Your task to perform on an android device: toggle wifi Image 0: 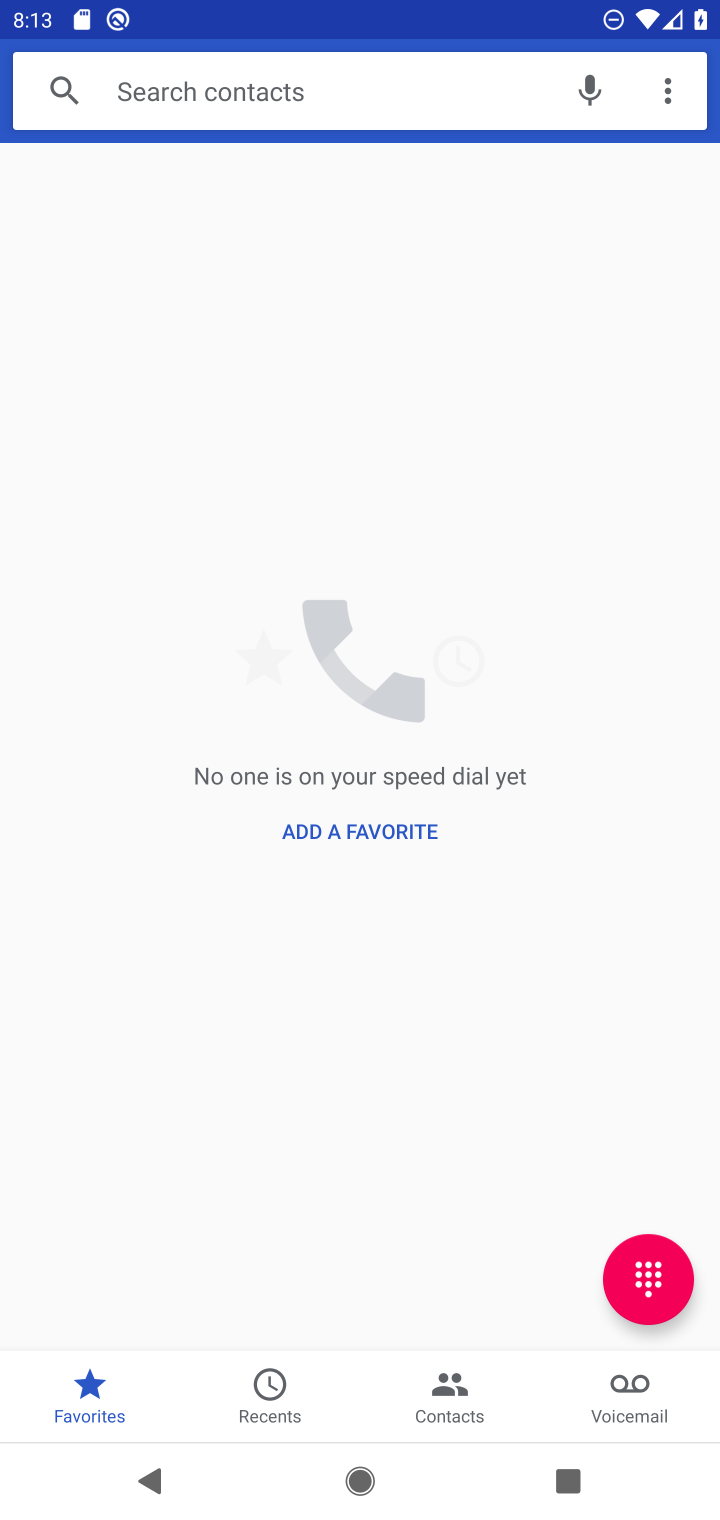
Step 0: press home button
Your task to perform on an android device: toggle wifi Image 1: 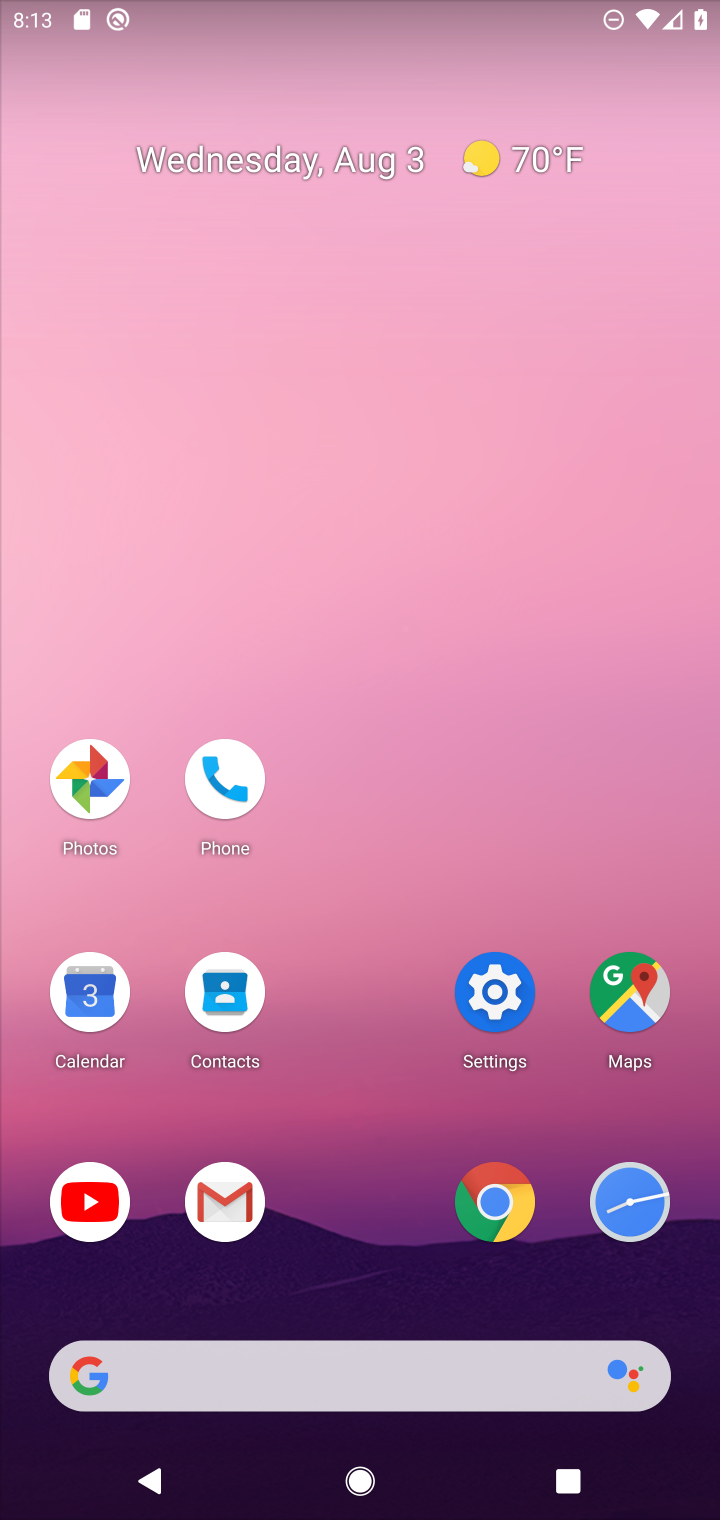
Step 1: click (498, 990)
Your task to perform on an android device: toggle wifi Image 2: 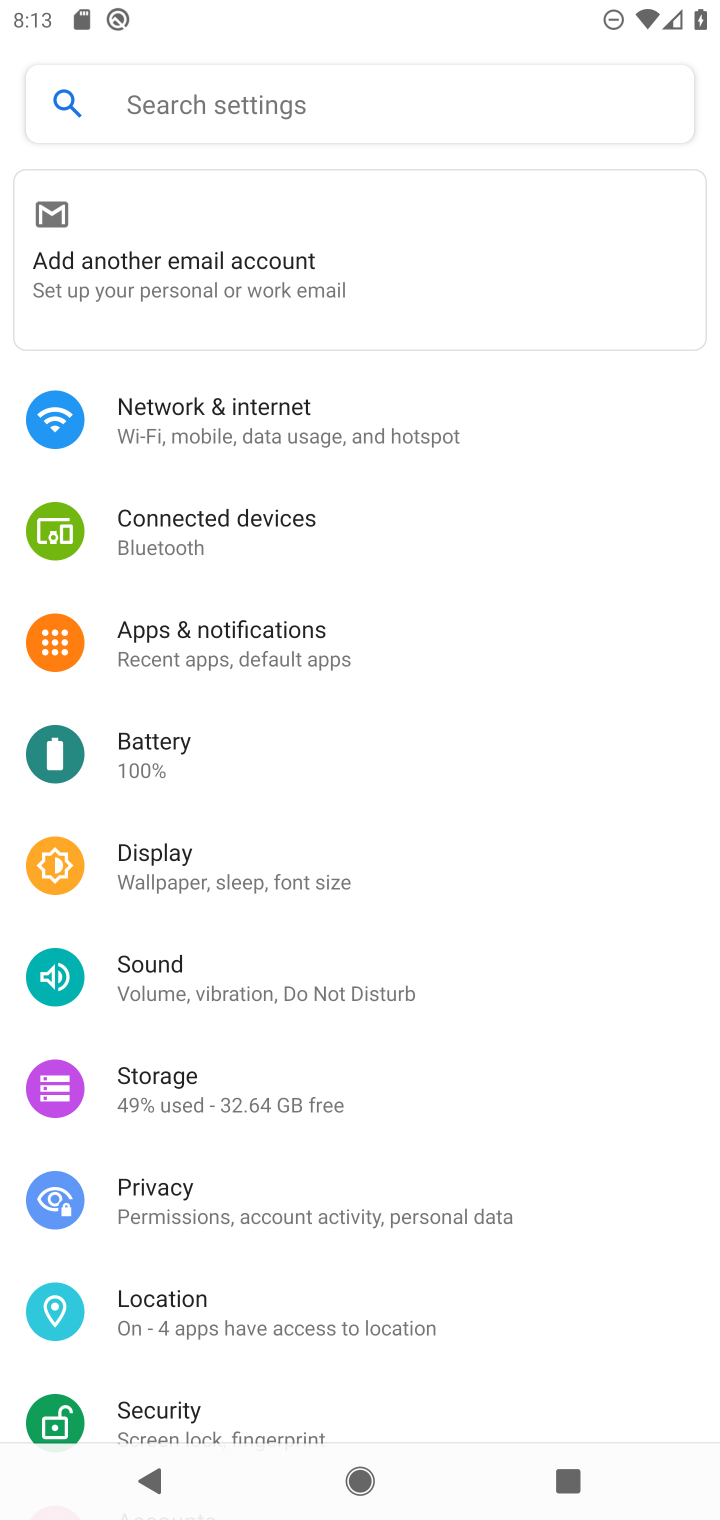
Step 2: click (247, 409)
Your task to perform on an android device: toggle wifi Image 3: 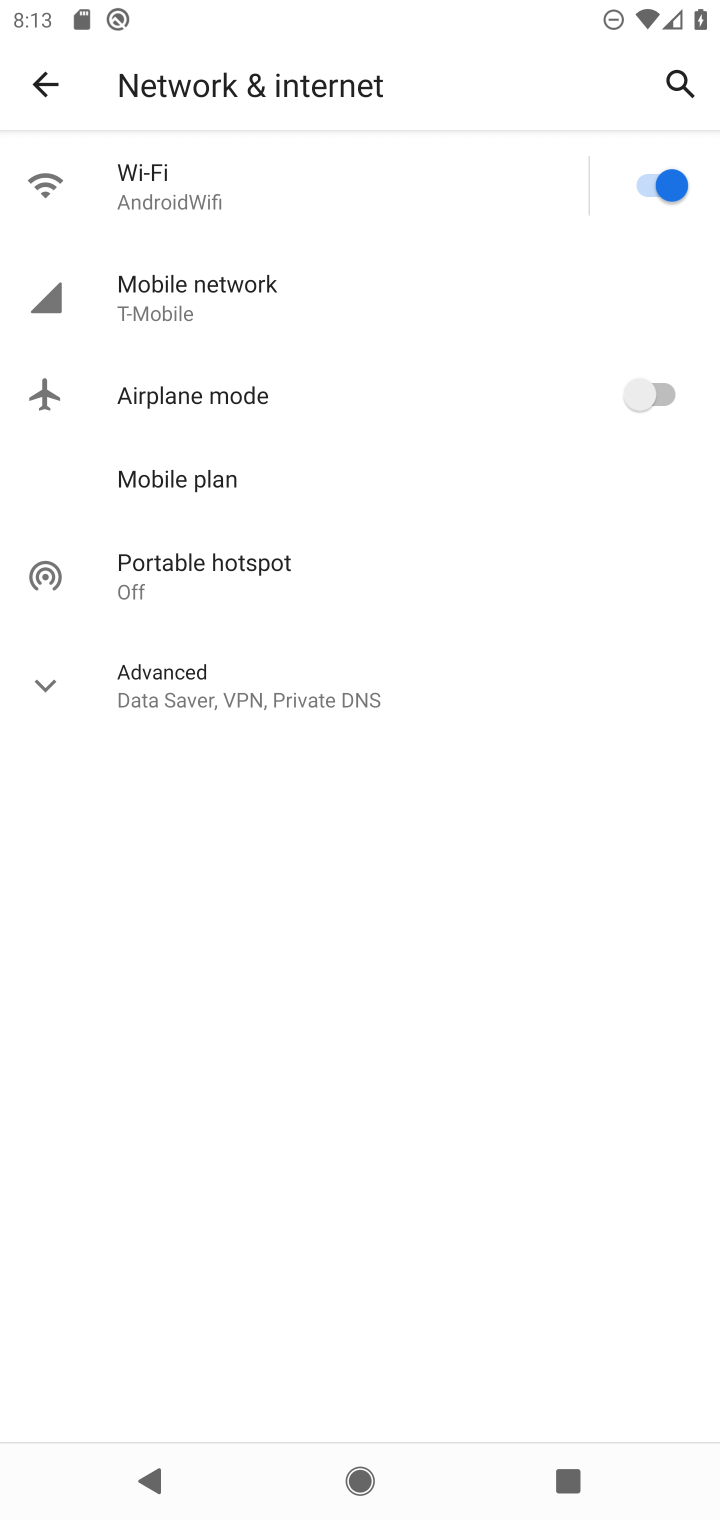
Step 3: click (672, 185)
Your task to perform on an android device: toggle wifi Image 4: 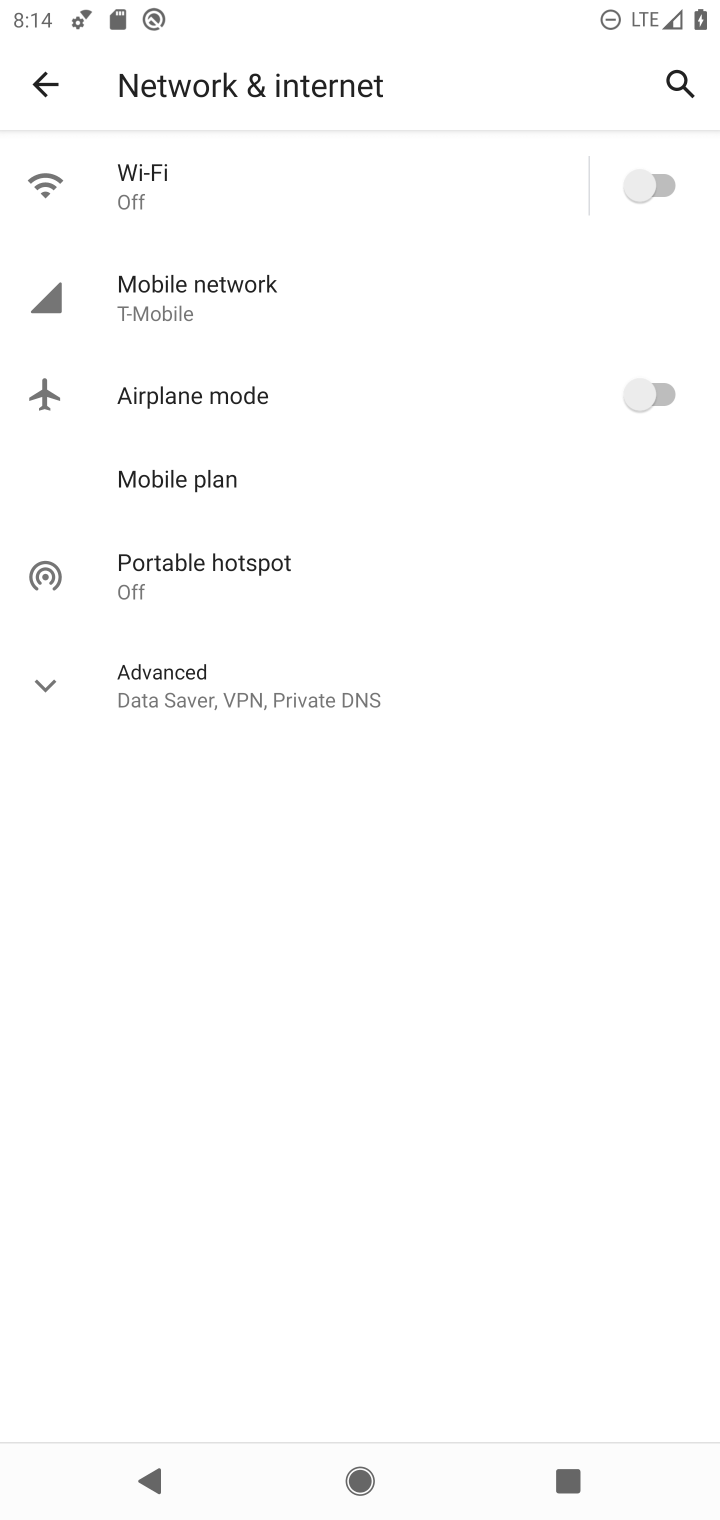
Step 4: task complete